Your task to perform on an android device: Go to privacy settings Image 0: 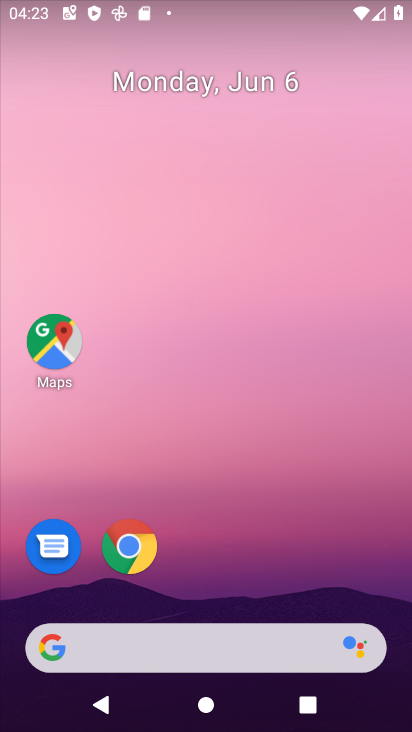
Step 0: drag from (287, 589) to (270, 197)
Your task to perform on an android device: Go to privacy settings Image 1: 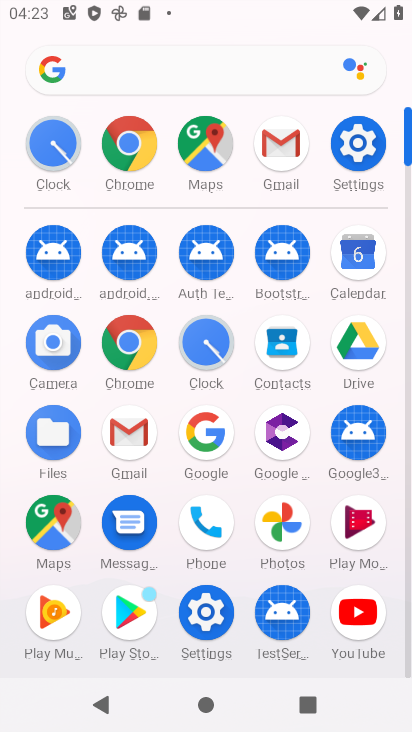
Step 1: click (363, 182)
Your task to perform on an android device: Go to privacy settings Image 2: 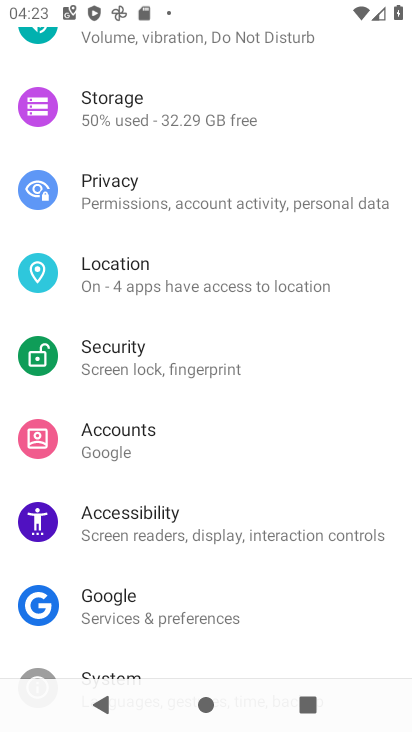
Step 2: click (200, 213)
Your task to perform on an android device: Go to privacy settings Image 3: 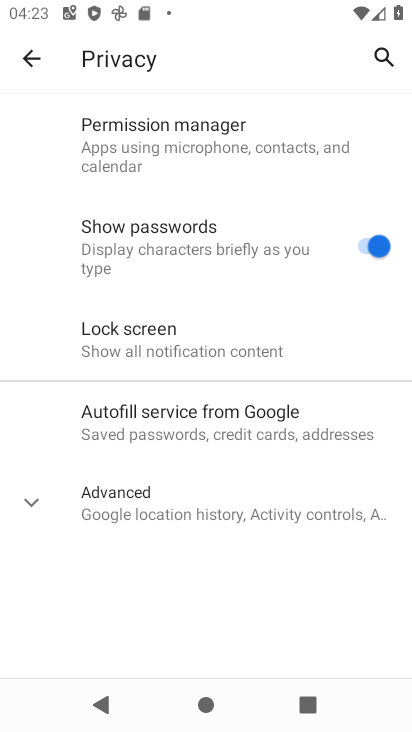
Step 3: click (226, 512)
Your task to perform on an android device: Go to privacy settings Image 4: 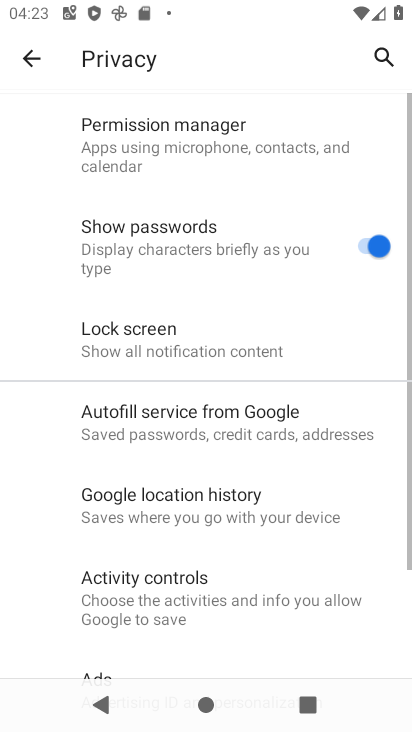
Step 4: task complete